Your task to perform on an android device: turn notification dots on Image 0: 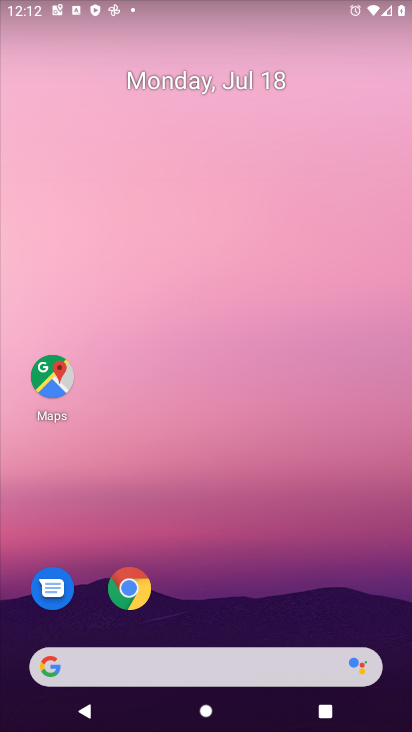
Step 0: drag from (261, 655) to (326, 191)
Your task to perform on an android device: turn notification dots on Image 1: 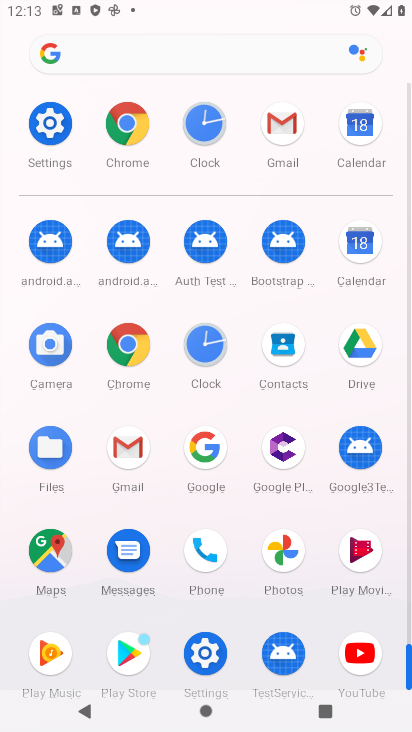
Step 1: click (55, 149)
Your task to perform on an android device: turn notification dots on Image 2: 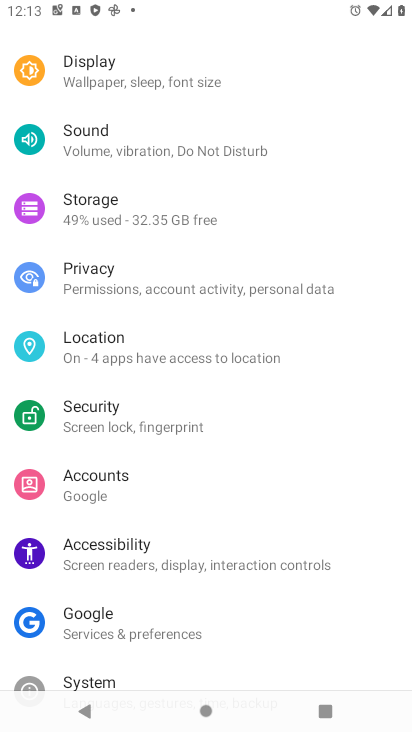
Step 2: drag from (197, 214) to (188, 646)
Your task to perform on an android device: turn notification dots on Image 3: 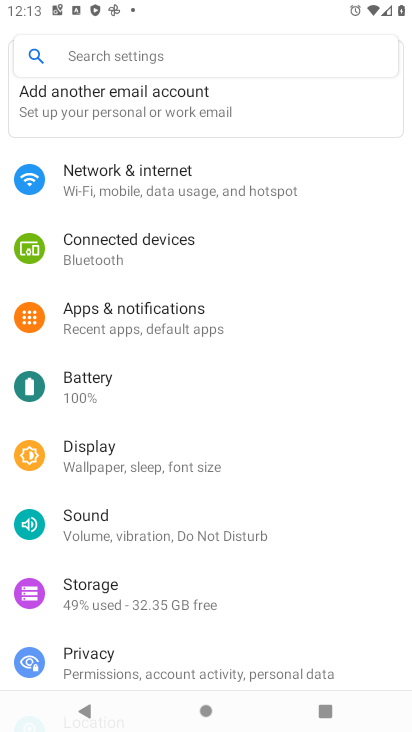
Step 3: click (193, 328)
Your task to perform on an android device: turn notification dots on Image 4: 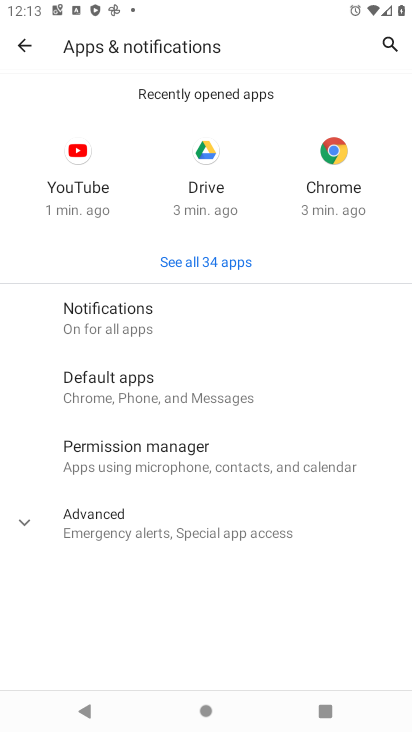
Step 4: click (190, 330)
Your task to perform on an android device: turn notification dots on Image 5: 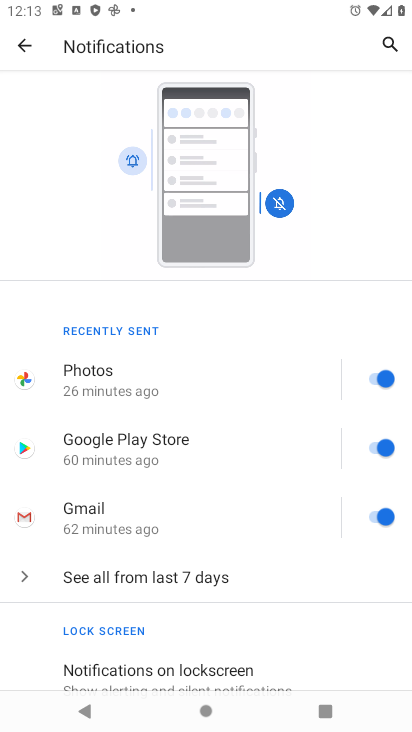
Step 5: drag from (208, 512) to (246, 227)
Your task to perform on an android device: turn notification dots on Image 6: 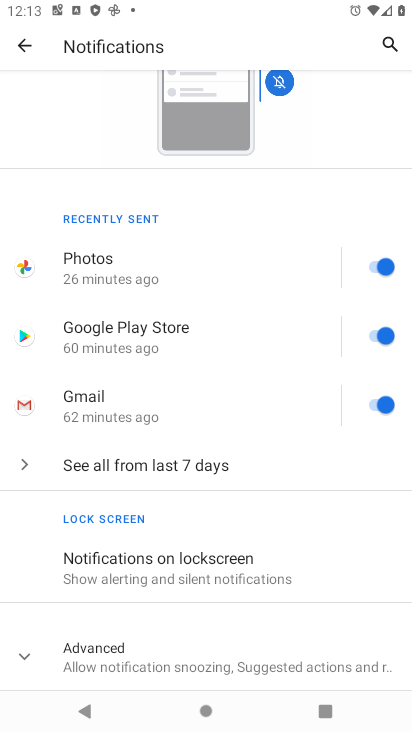
Step 6: click (172, 663)
Your task to perform on an android device: turn notification dots on Image 7: 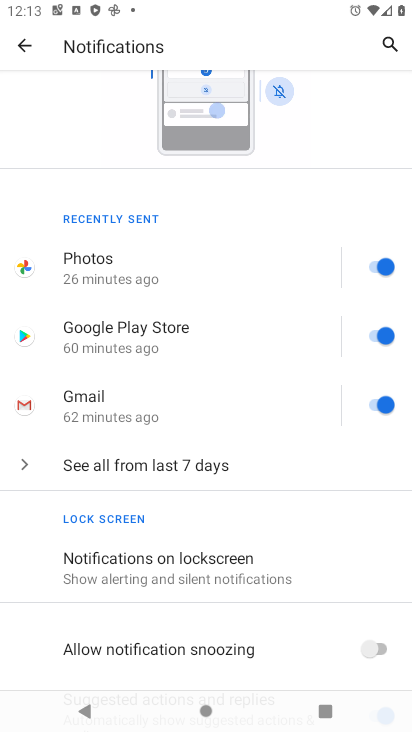
Step 7: task complete